Your task to perform on an android device: change keyboard looks Image 0: 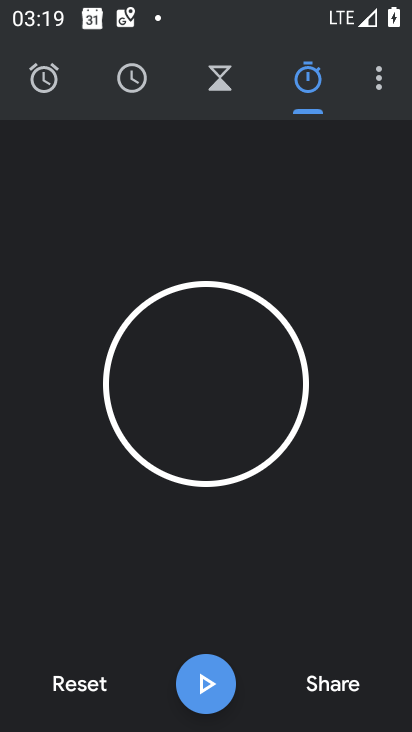
Step 0: press home button
Your task to perform on an android device: change keyboard looks Image 1: 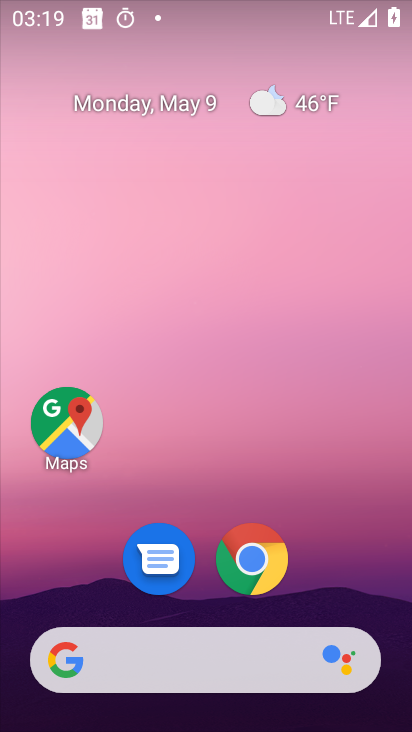
Step 1: drag from (342, 557) to (327, 134)
Your task to perform on an android device: change keyboard looks Image 2: 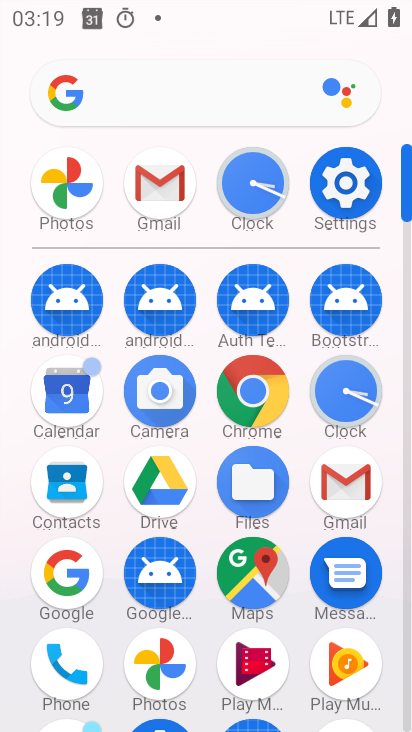
Step 2: click (351, 177)
Your task to perform on an android device: change keyboard looks Image 3: 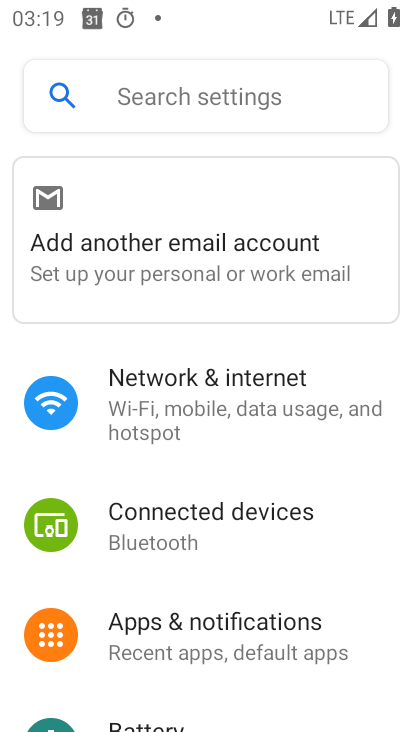
Step 3: drag from (198, 474) to (214, 247)
Your task to perform on an android device: change keyboard looks Image 4: 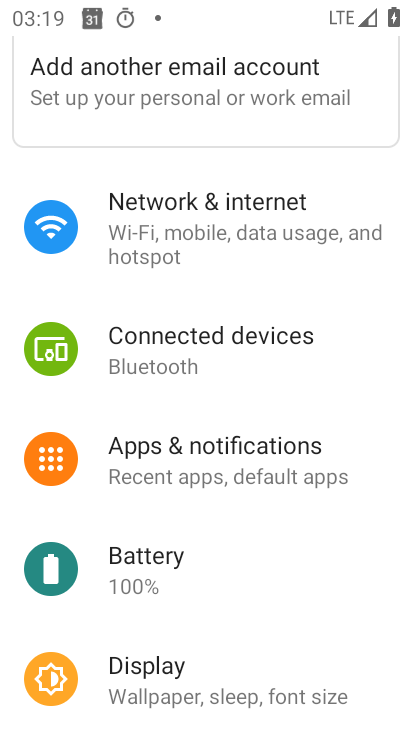
Step 4: drag from (194, 398) to (225, 159)
Your task to perform on an android device: change keyboard looks Image 5: 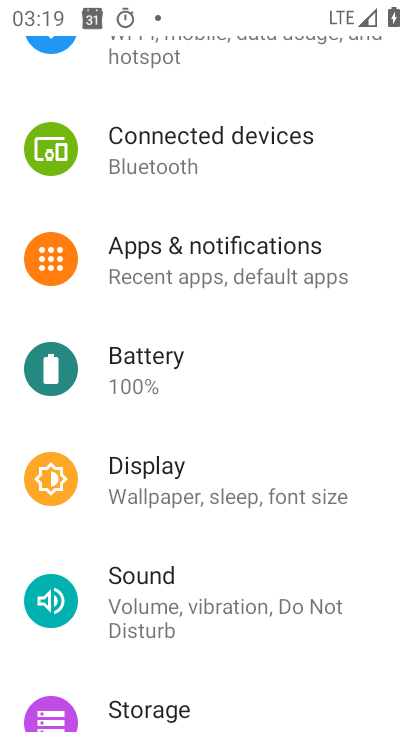
Step 5: drag from (183, 323) to (237, 91)
Your task to perform on an android device: change keyboard looks Image 6: 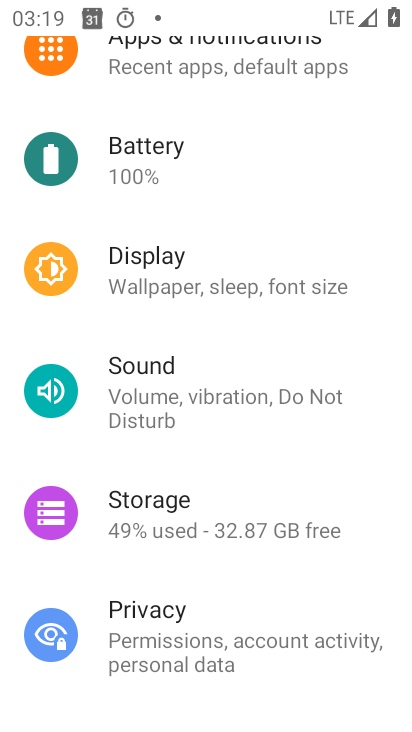
Step 6: drag from (173, 221) to (221, 56)
Your task to perform on an android device: change keyboard looks Image 7: 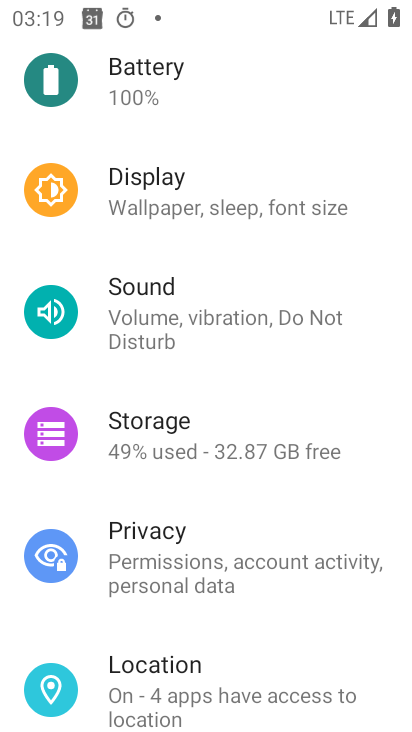
Step 7: drag from (160, 246) to (205, 86)
Your task to perform on an android device: change keyboard looks Image 8: 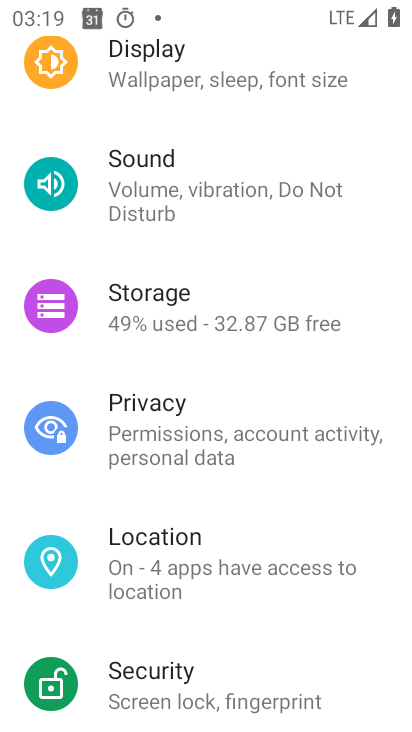
Step 8: drag from (153, 247) to (190, 108)
Your task to perform on an android device: change keyboard looks Image 9: 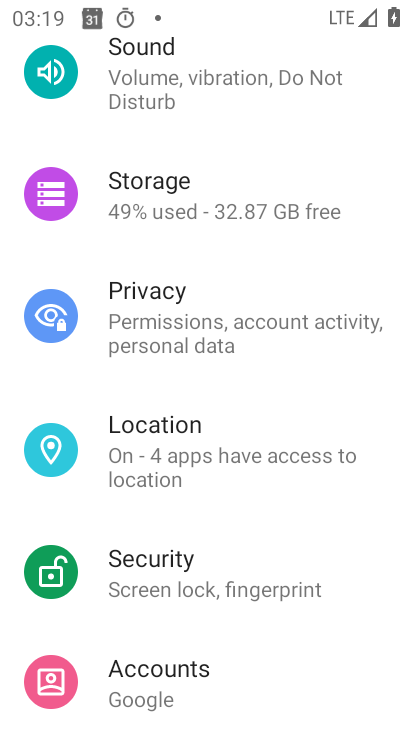
Step 9: drag from (168, 147) to (200, 58)
Your task to perform on an android device: change keyboard looks Image 10: 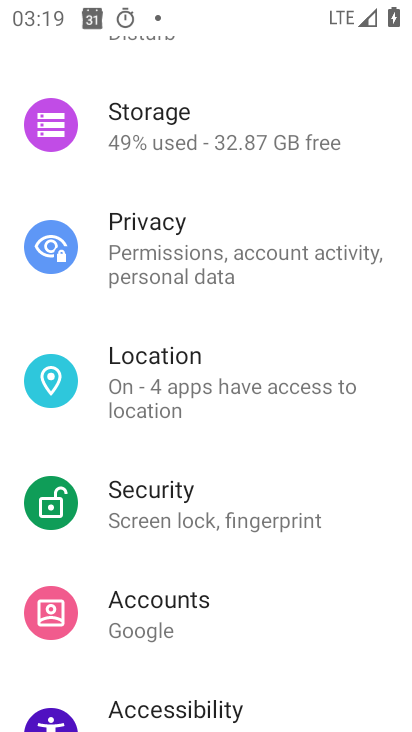
Step 10: drag from (153, 191) to (190, 87)
Your task to perform on an android device: change keyboard looks Image 11: 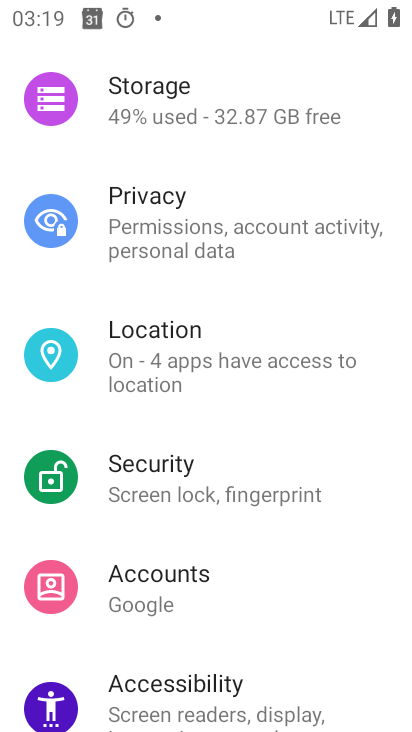
Step 11: drag from (145, 287) to (183, 151)
Your task to perform on an android device: change keyboard looks Image 12: 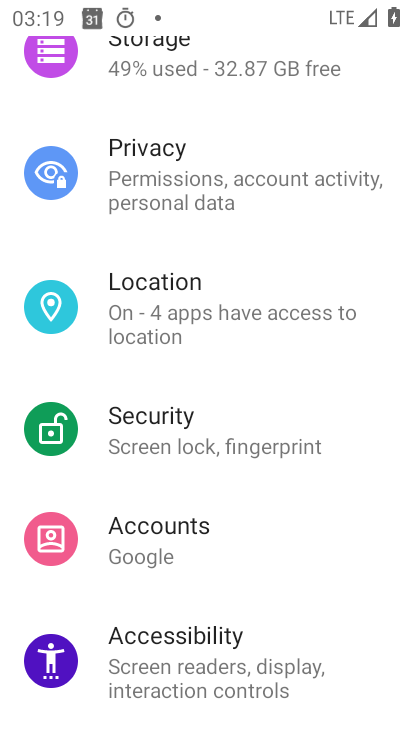
Step 12: drag from (149, 241) to (218, 69)
Your task to perform on an android device: change keyboard looks Image 13: 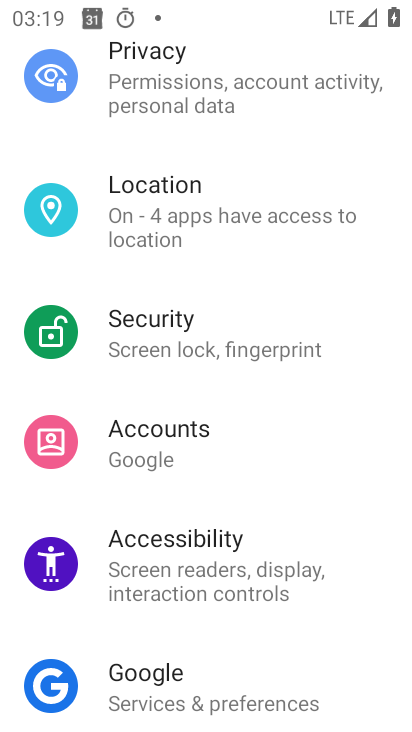
Step 13: drag from (150, 279) to (212, 95)
Your task to perform on an android device: change keyboard looks Image 14: 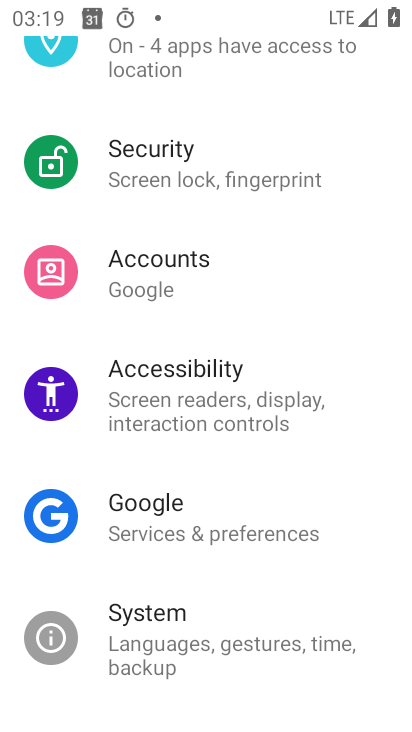
Step 14: click (161, 654)
Your task to perform on an android device: change keyboard looks Image 15: 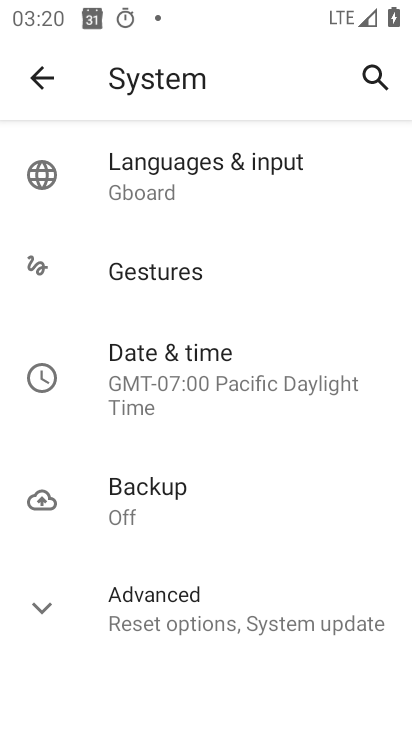
Step 15: click (200, 155)
Your task to perform on an android device: change keyboard looks Image 16: 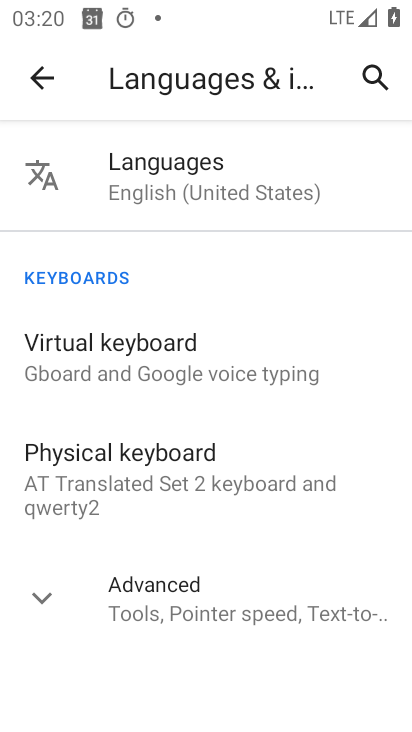
Step 16: click (163, 349)
Your task to perform on an android device: change keyboard looks Image 17: 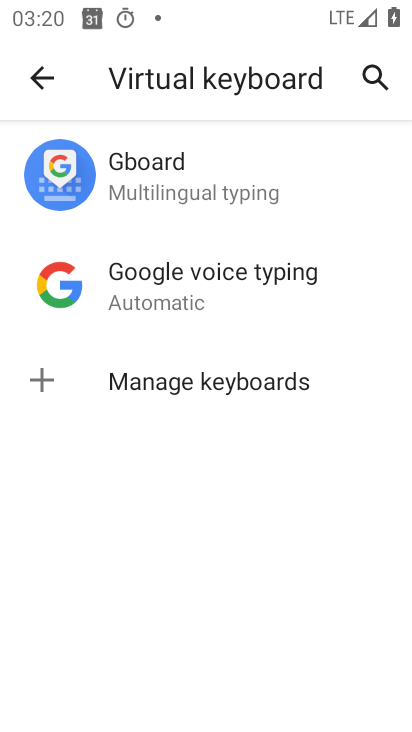
Step 17: click (176, 174)
Your task to perform on an android device: change keyboard looks Image 18: 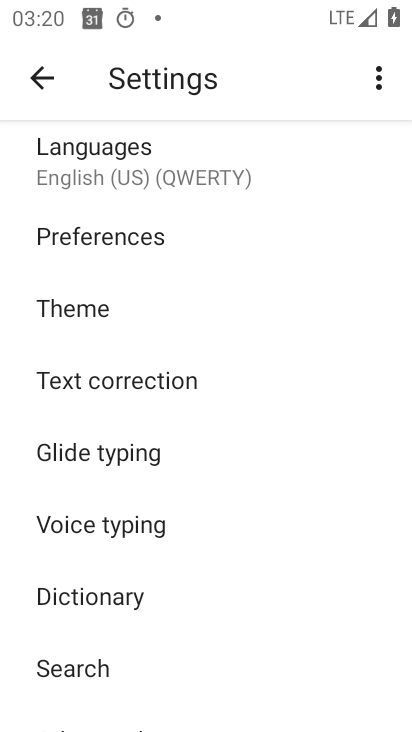
Step 18: click (105, 305)
Your task to perform on an android device: change keyboard looks Image 19: 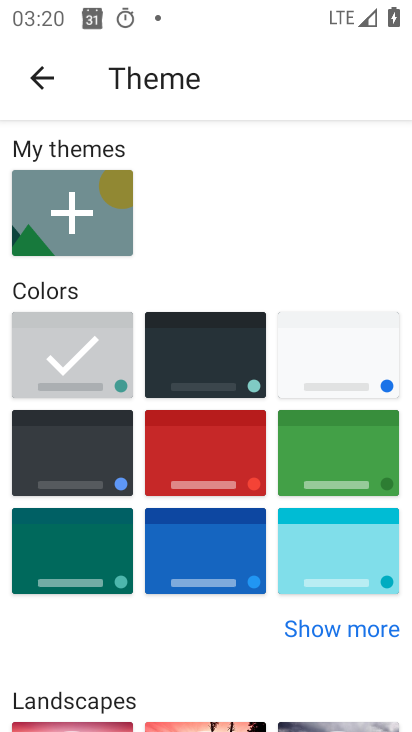
Step 19: click (171, 358)
Your task to perform on an android device: change keyboard looks Image 20: 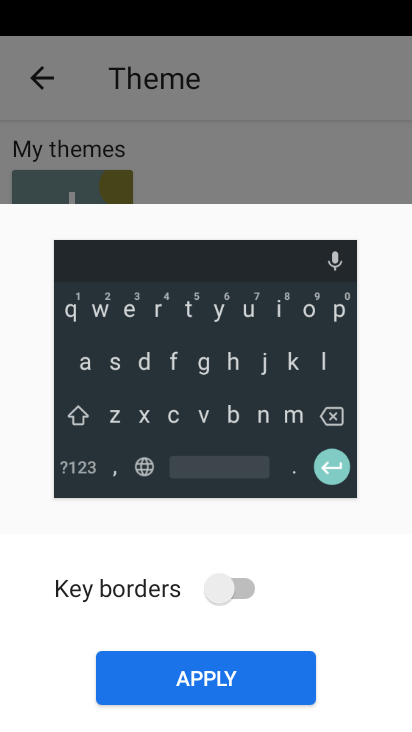
Step 20: click (239, 586)
Your task to perform on an android device: change keyboard looks Image 21: 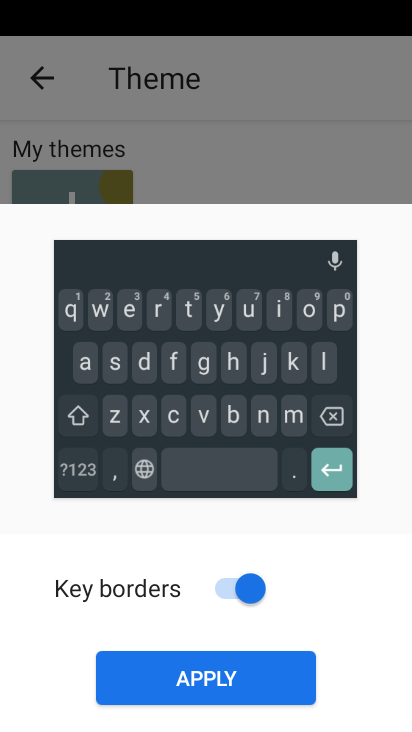
Step 21: click (243, 664)
Your task to perform on an android device: change keyboard looks Image 22: 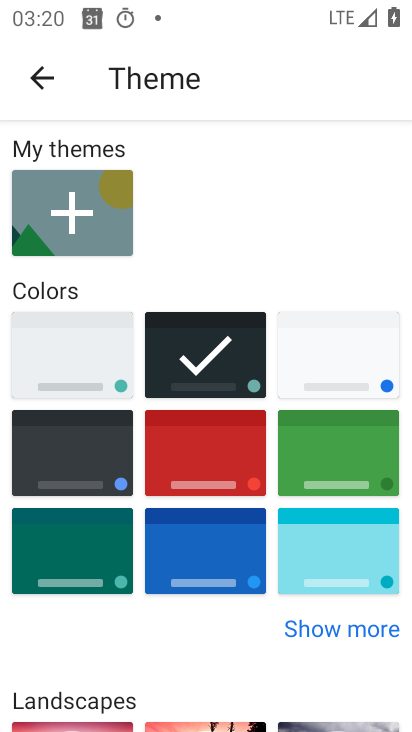
Step 22: task complete